Your task to perform on an android device: Open wifi settings Image 0: 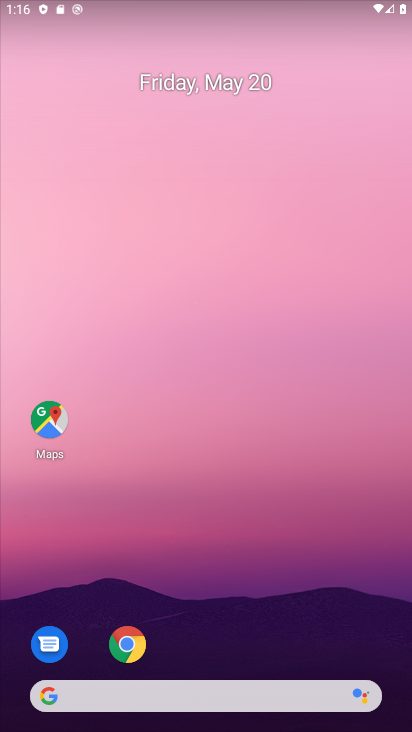
Step 0: drag from (108, 8) to (8, 384)
Your task to perform on an android device: Open wifi settings Image 1: 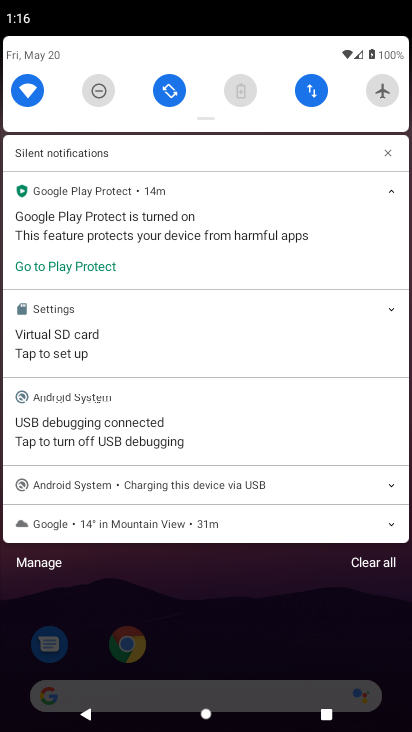
Step 1: click (35, 101)
Your task to perform on an android device: Open wifi settings Image 2: 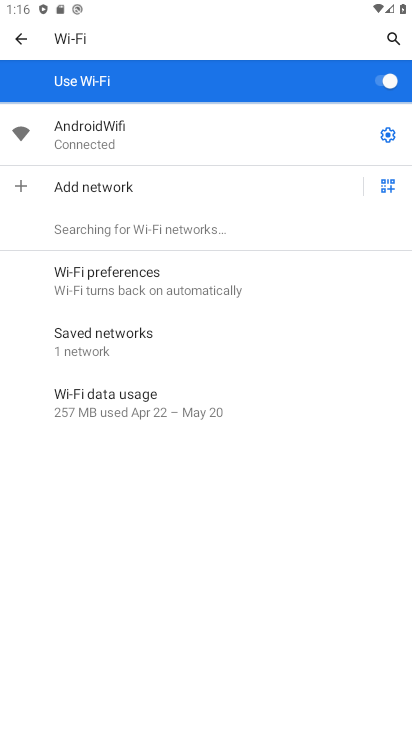
Step 2: task complete